Your task to perform on an android device: change your default location settings in chrome Image 0: 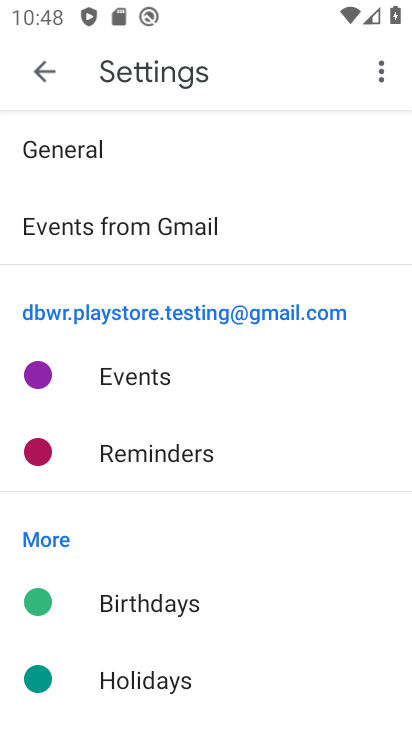
Step 0: task complete